Your task to perform on an android device: Open settings Image 0: 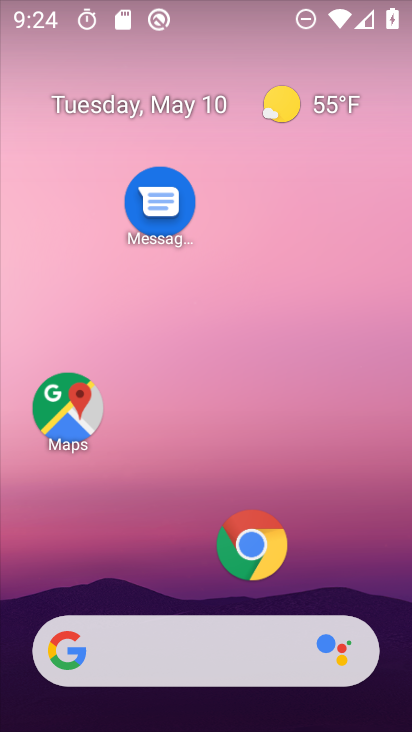
Step 0: drag from (183, 537) to (171, 85)
Your task to perform on an android device: Open settings Image 1: 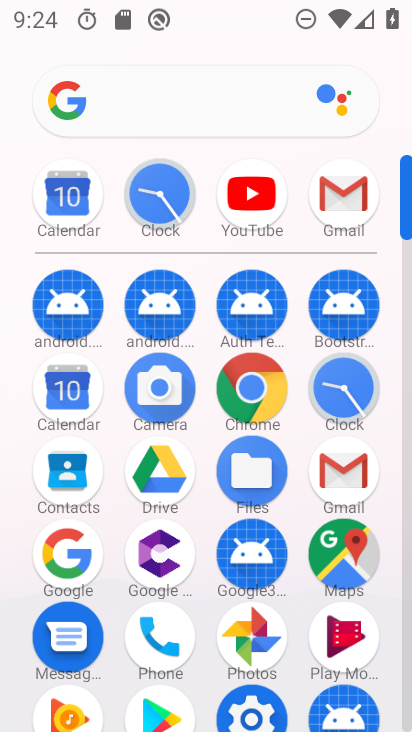
Step 1: click (241, 704)
Your task to perform on an android device: Open settings Image 2: 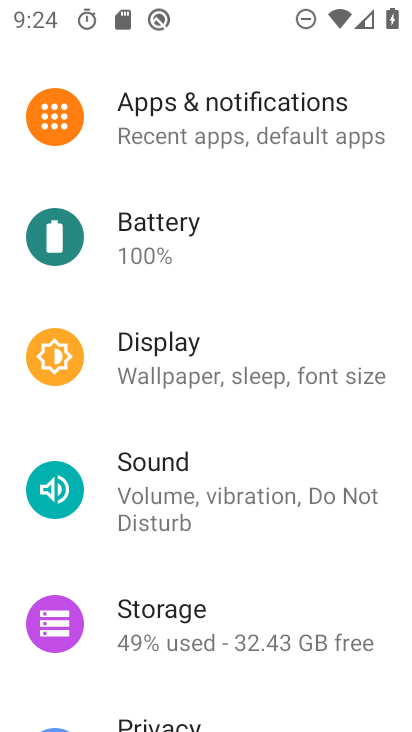
Step 2: task complete